Your task to perform on an android device: change keyboard looks Image 0: 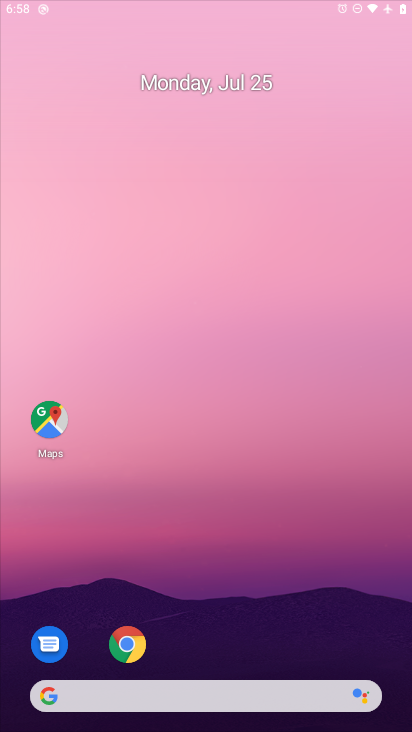
Step 0: press home button
Your task to perform on an android device: change keyboard looks Image 1: 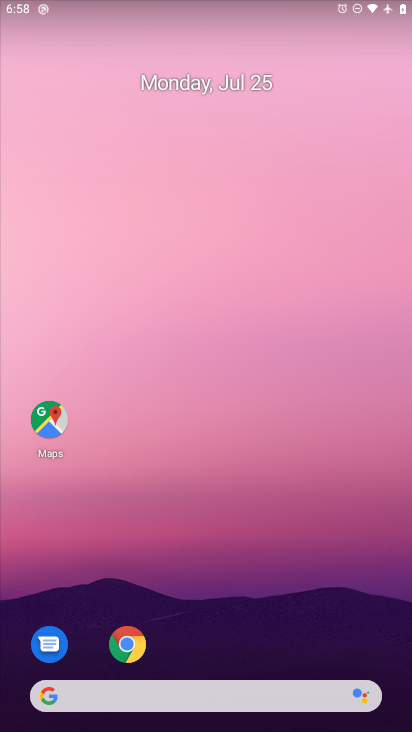
Step 1: drag from (242, 657) to (288, 145)
Your task to perform on an android device: change keyboard looks Image 2: 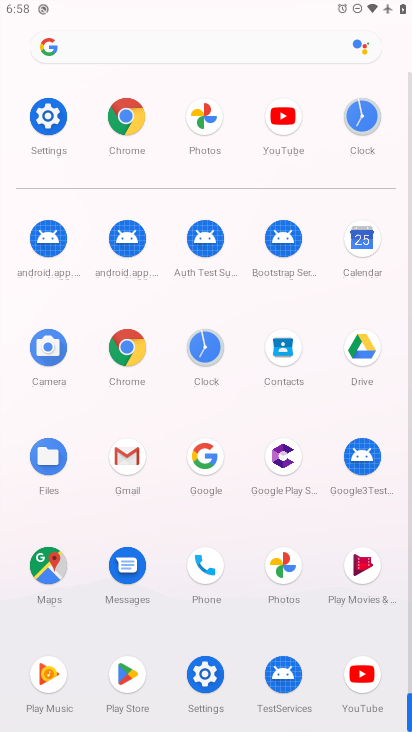
Step 2: click (55, 115)
Your task to perform on an android device: change keyboard looks Image 3: 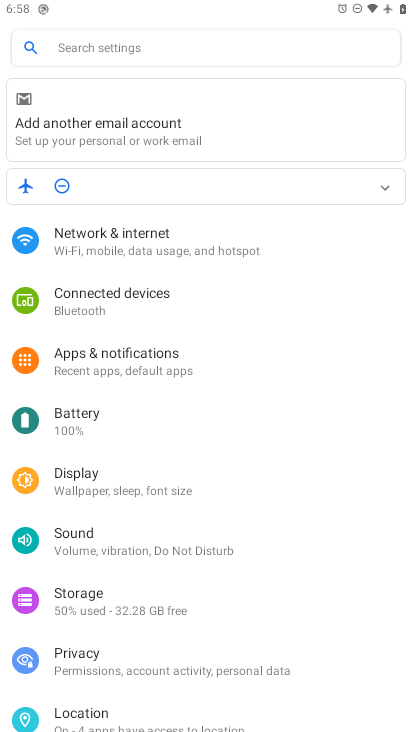
Step 3: drag from (301, 609) to (336, 143)
Your task to perform on an android device: change keyboard looks Image 4: 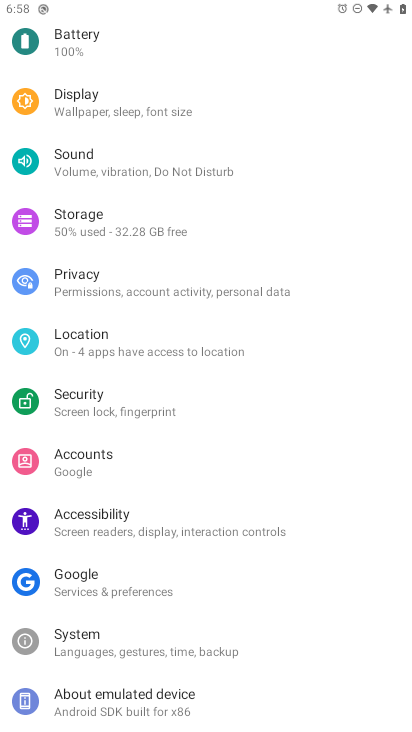
Step 4: click (155, 649)
Your task to perform on an android device: change keyboard looks Image 5: 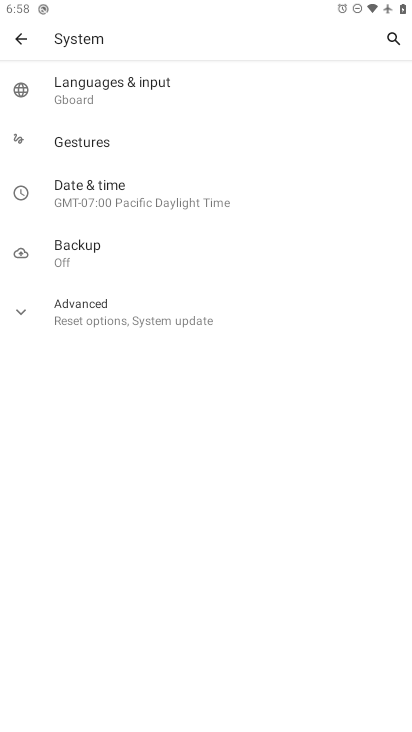
Step 5: click (70, 97)
Your task to perform on an android device: change keyboard looks Image 6: 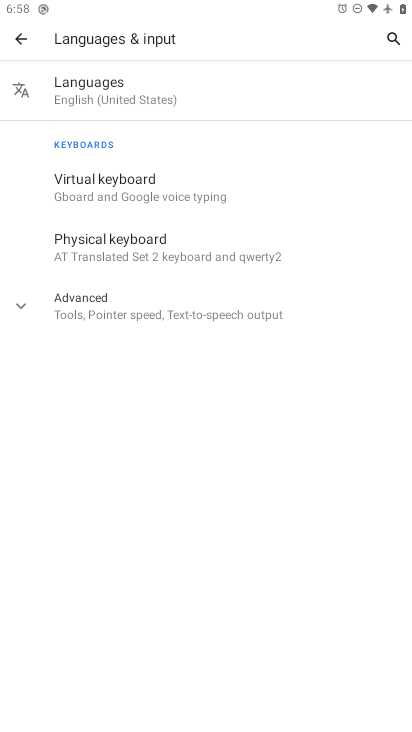
Step 6: click (103, 188)
Your task to perform on an android device: change keyboard looks Image 7: 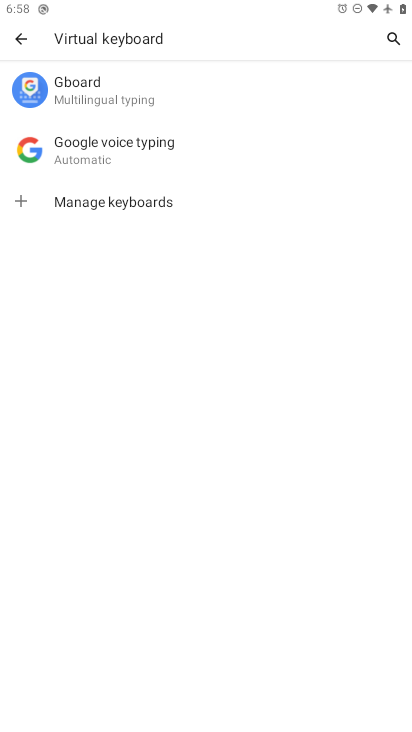
Step 7: click (80, 95)
Your task to perform on an android device: change keyboard looks Image 8: 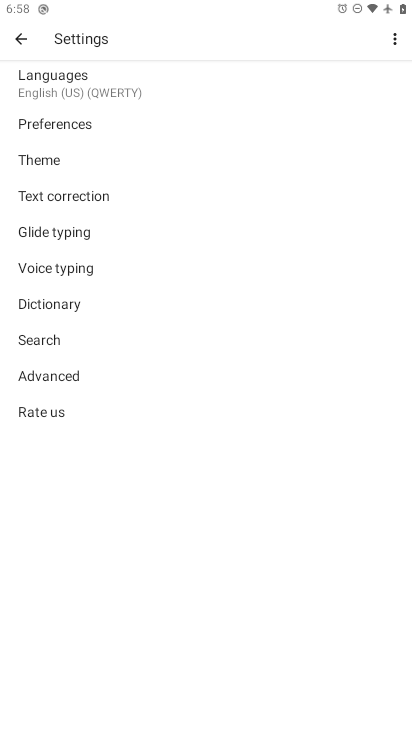
Step 8: click (32, 164)
Your task to perform on an android device: change keyboard looks Image 9: 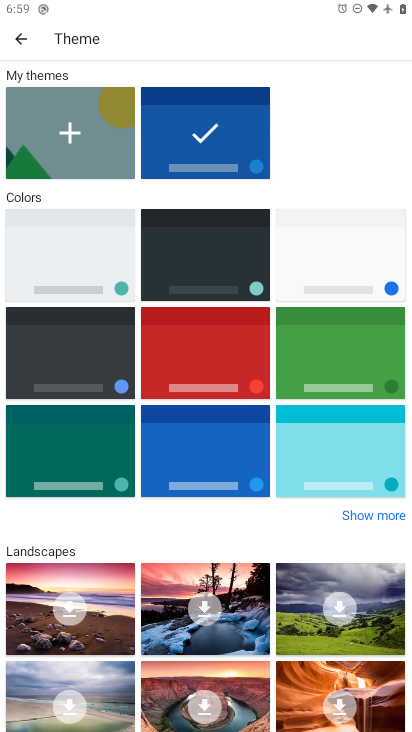
Step 9: click (210, 228)
Your task to perform on an android device: change keyboard looks Image 10: 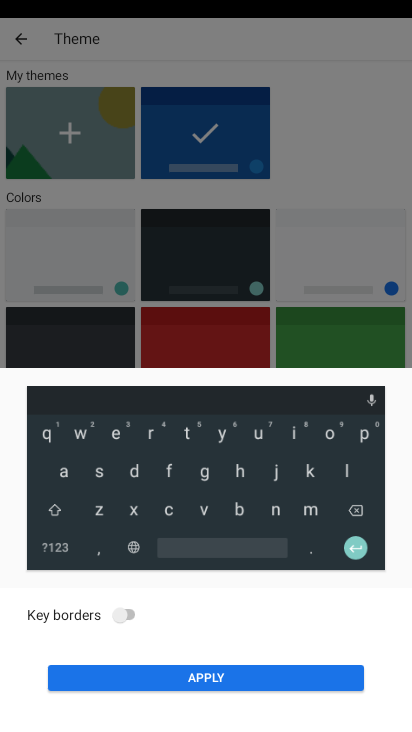
Step 10: click (138, 679)
Your task to perform on an android device: change keyboard looks Image 11: 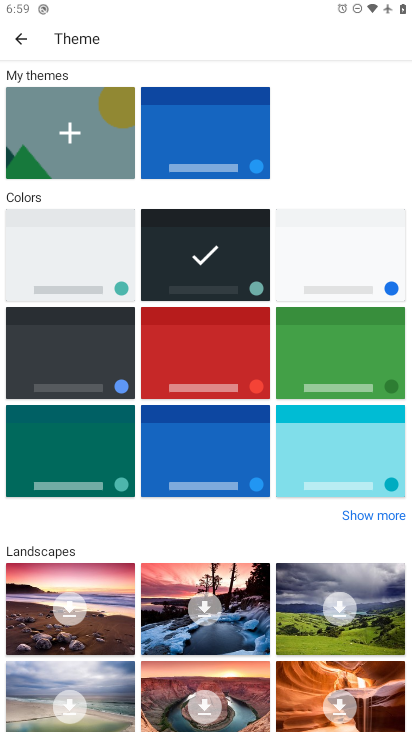
Step 11: task complete